Your task to perform on an android device: Open Chrome and go to settings Image 0: 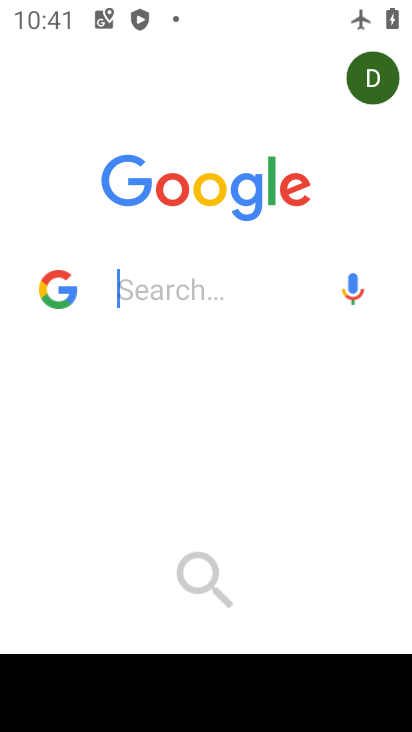
Step 0: press home button
Your task to perform on an android device: Open Chrome and go to settings Image 1: 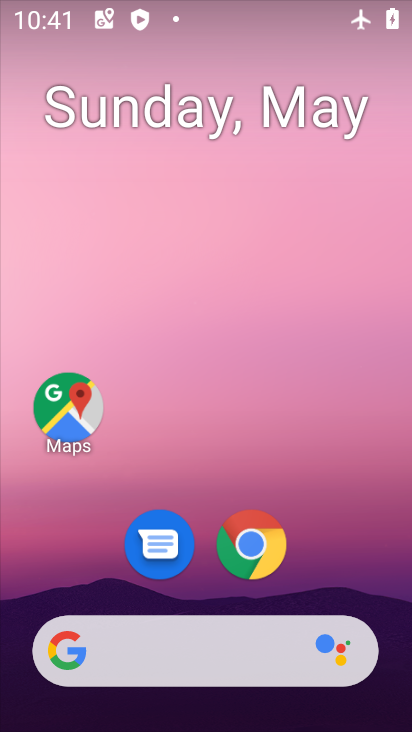
Step 1: click (245, 535)
Your task to perform on an android device: Open Chrome and go to settings Image 2: 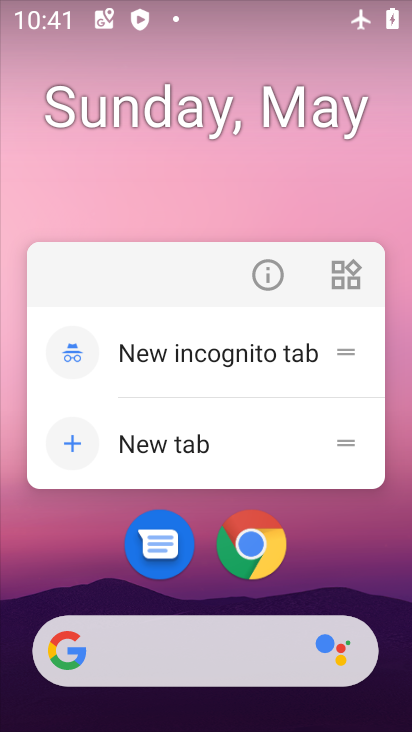
Step 2: click (250, 532)
Your task to perform on an android device: Open Chrome and go to settings Image 3: 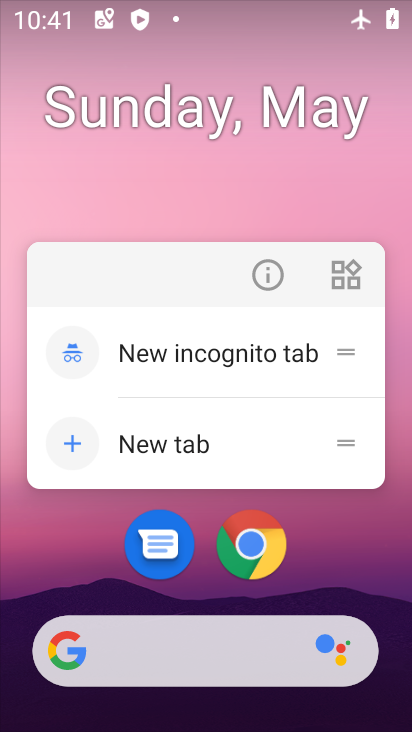
Step 3: click (247, 535)
Your task to perform on an android device: Open Chrome and go to settings Image 4: 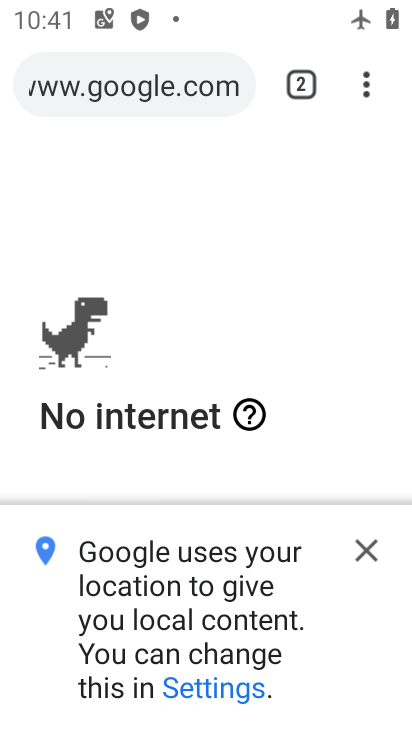
Step 4: click (354, 82)
Your task to perform on an android device: Open Chrome and go to settings Image 5: 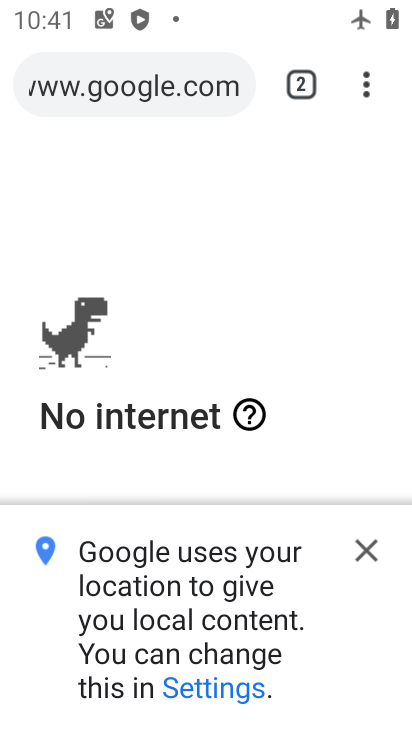
Step 5: click (361, 71)
Your task to perform on an android device: Open Chrome and go to settings Image 6: 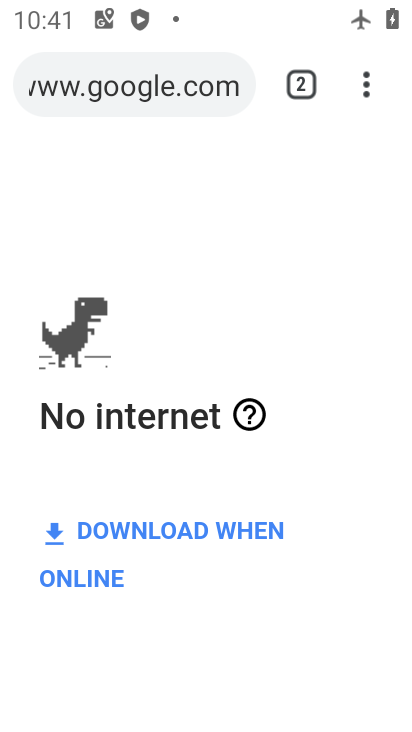
Step 6: click (365, 74)
Your task to perform on an android device: Open Chrome and go to settings Image 7: 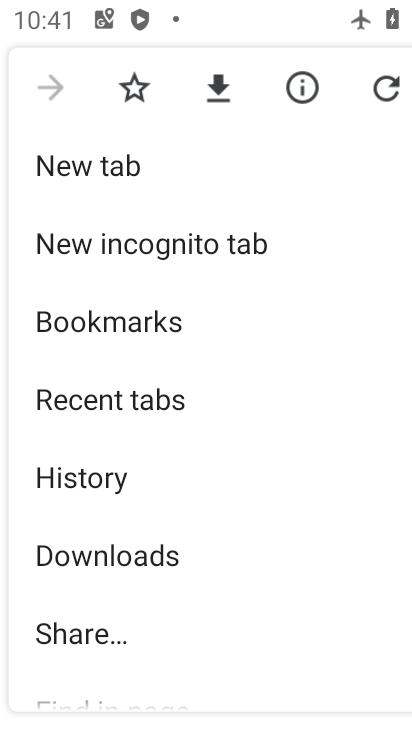
Step 7: task complete